Your task to perform on an android device: change alarm snooze length Image 0: 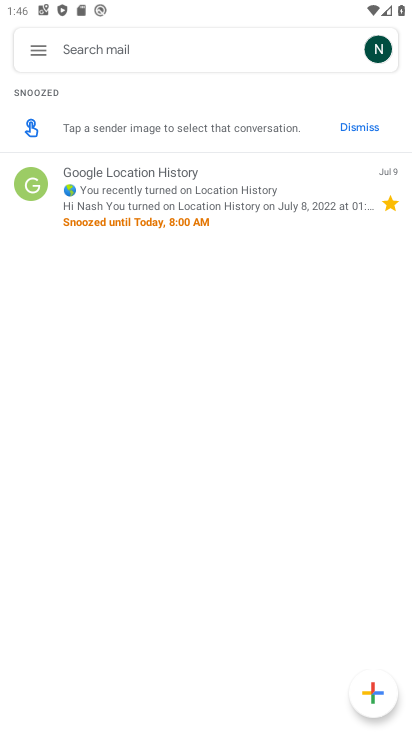
Step 0: press home button
Your task to perform on an android device: change alarm snooze length Image 1: 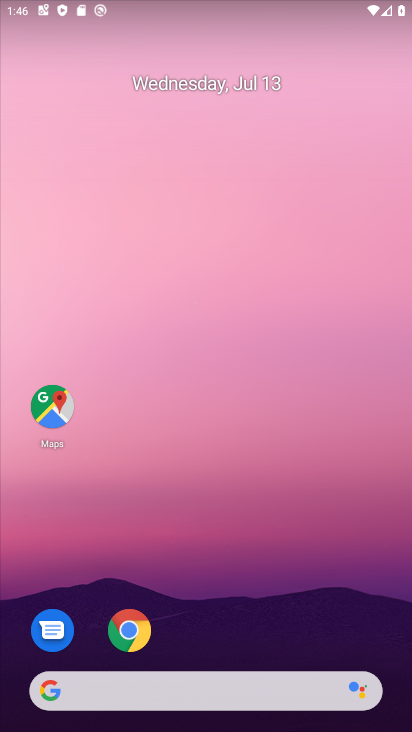
Step 1: drag from (362, 606) to (373, 100)
Your task to perform on an android device: change alarm snooze length Image 2: 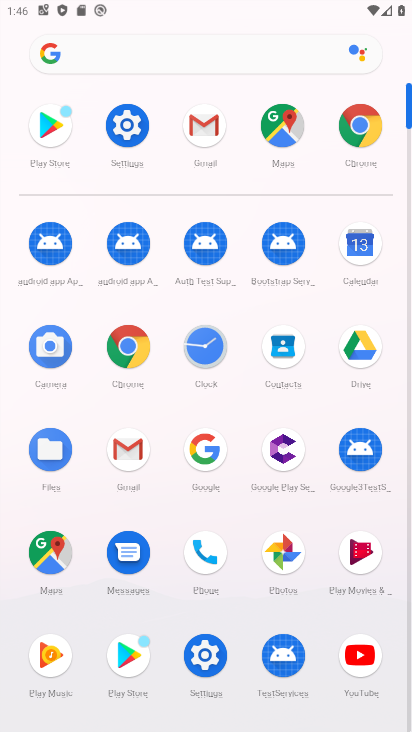
Step 2: click (214, 343)
Your task to perform on an android device: change alarm snooze length Image 3: 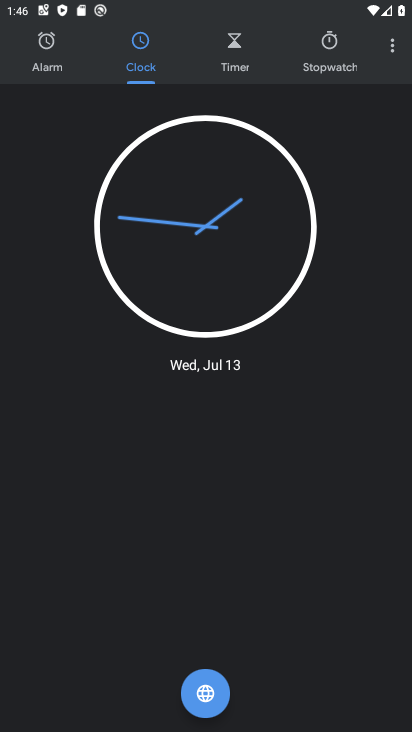
Step 3: click (394, 56)
Your task to perform on an android device: change alarm snooze length Image 4: 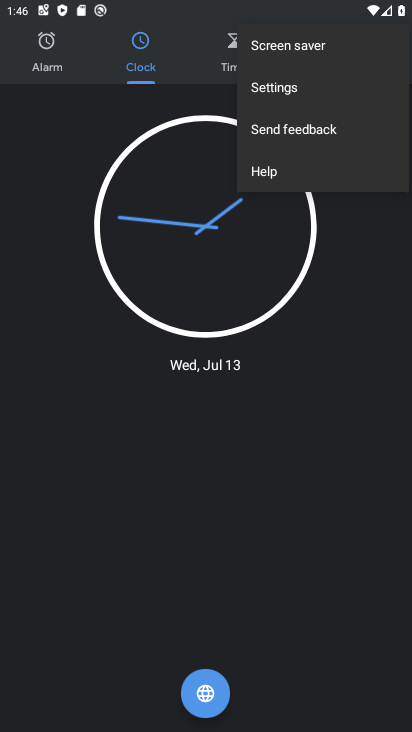
Step 4: click (311, 88)
Your task to perform on an android device: change alarm snooze length Image 5: 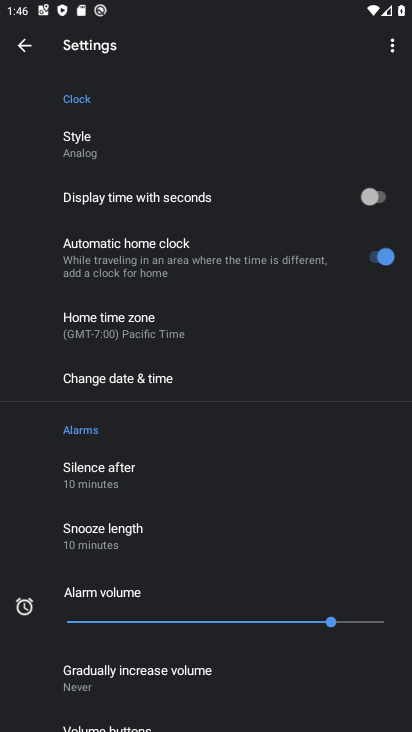
Step 5: drag from (299, 345) to (304, 293)
Your task to perform on an android device: change alarm snooze length Image 6: 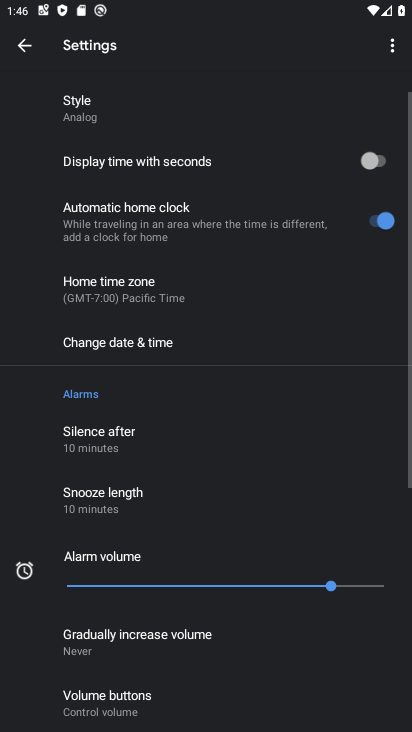
Step 6: drag from (321, 400) to (324, 315)
Your task to perform on an android device: change alarm snooze length Image 7: 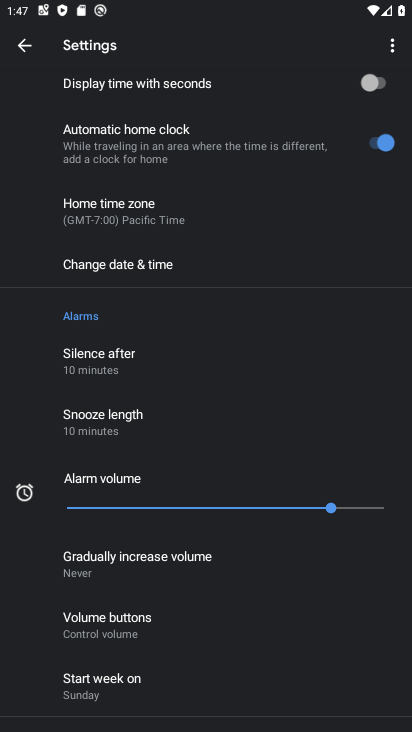
Step 7: drag from (327, 421) to (330, 347)
Your task to perform on an android device: change alarm snooze length Image 8: 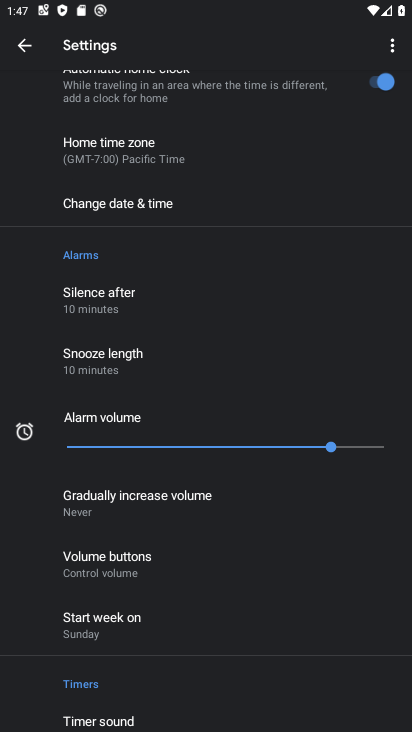
Step 8: drag from (344, 535) to (348, 418)
Your task to perform on an android device: change alarm snooze length Image 9: 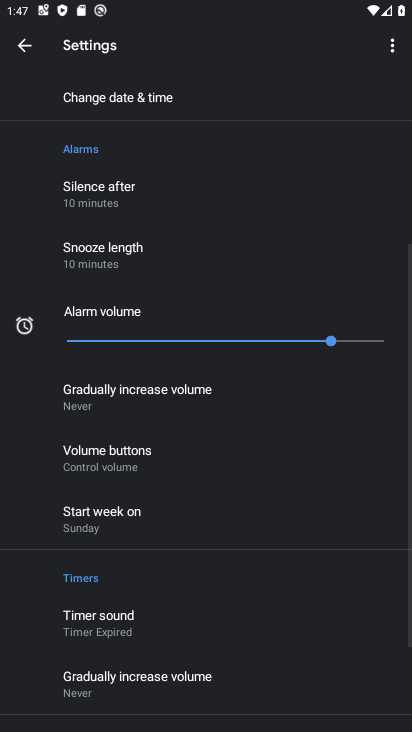
Step 9: drag from (346, 536) to (343, 412)
Your task to perform on an android device: change alarm snooze length Image 10: 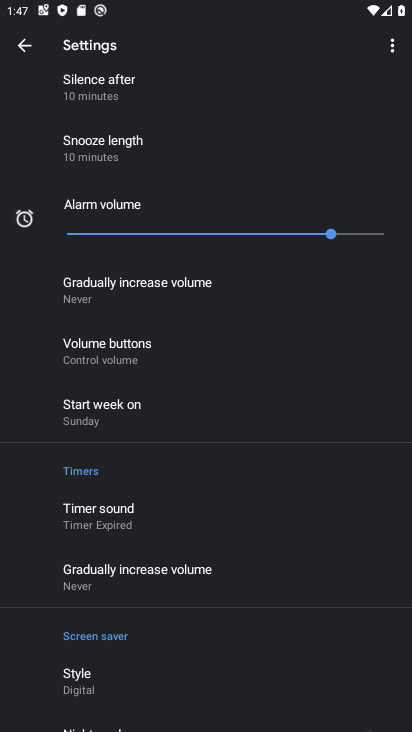
Step 10: drag from (336, 525) to (336, 396)
Your task to perform on an android device: change alarm snooze length Image 11: 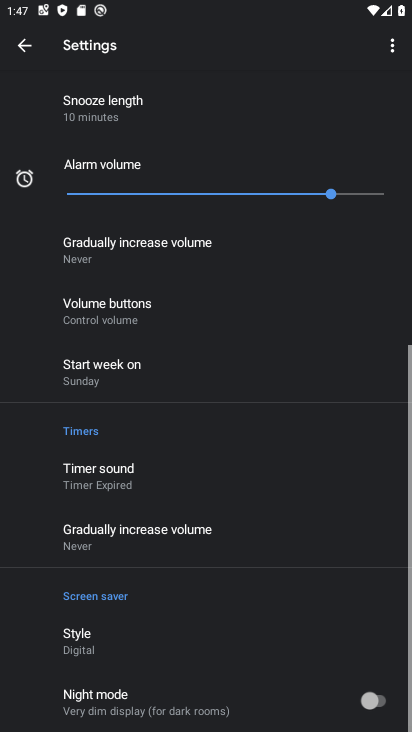
Step 11: drag from (350, 316) to (339, 396)
Your task to perform on an android device: change alarm snooze length Image 12: 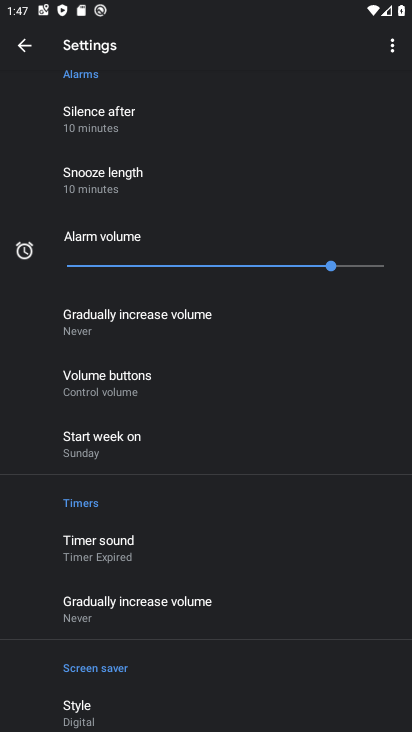
Step 12: drag from (339, 317) to (336, 409)
Your task to perform on an android device: change alarm snooze length Image 13: 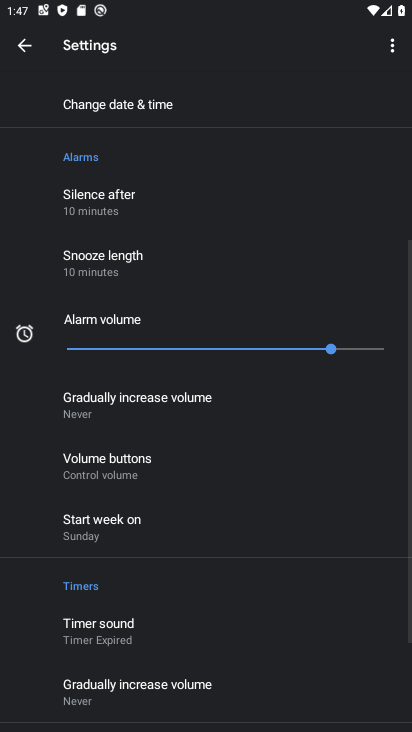
Step 13: drag from (334, 286) to (324, 420)
Your task to perform on an android device: change alarm snooze length Image 14: 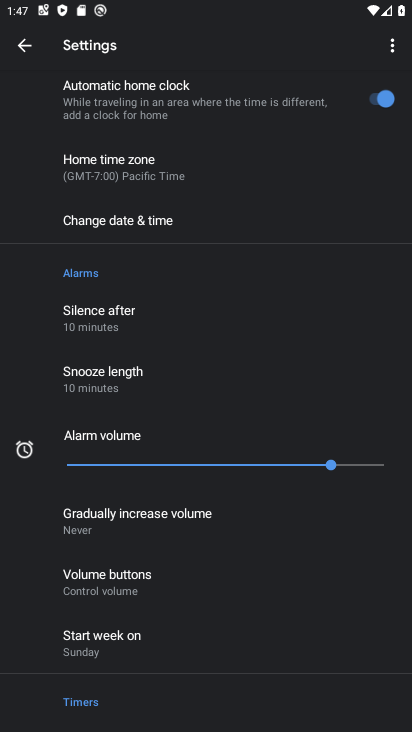
Step 14: drag from (311, 244) to (293, 549)
Your task to perform on an android device: change alarm snooze length Image 15: 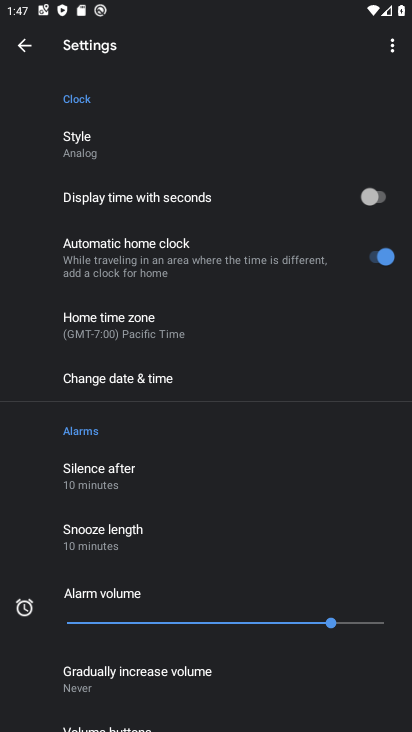
Step 15: click (132, 549)
Your task to perform on an android device: change alarm snooze length Image 16: 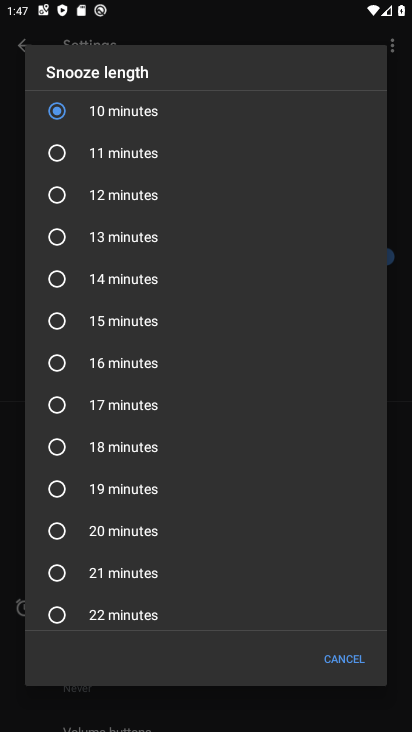
Step 16: click (138, 394)
Your task to perform on an android device: change alarm snooze length Image 17: 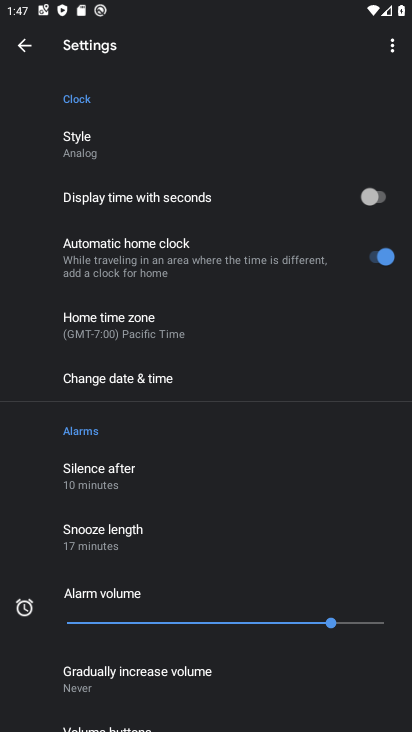
Step 17: task complete